Your task to perform on an android device: Open Chrome and go to settings Image 0: 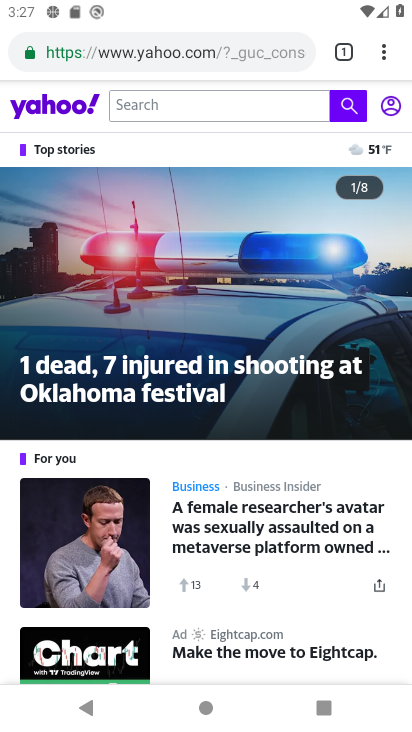
Step 0: drag from (384, 38) to (287, 593)
Your task to perform on an android device: Open Chrome and go to settings Image 1: 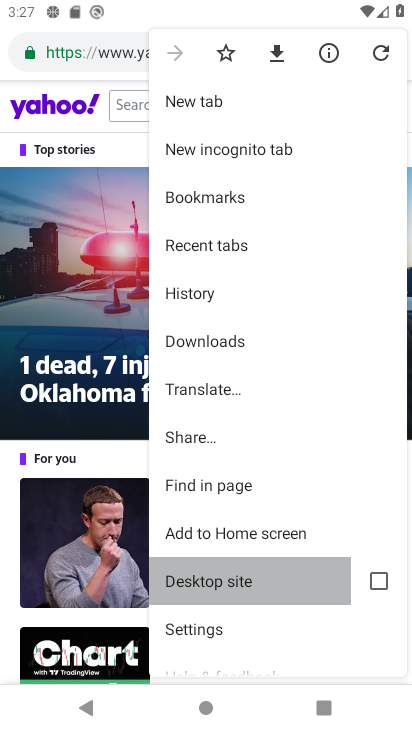
Step 1: click (273, 609)
Your task to perform on an android device: Open Chrome and go to settings Image 2: 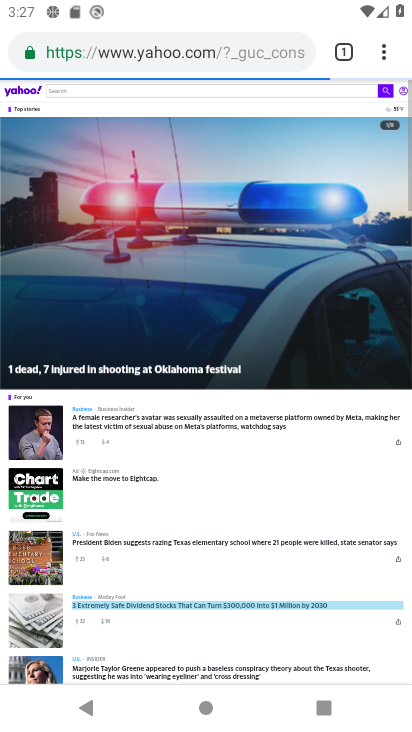
Step 2: task complete